Your task to perform on an android device: Open the calendar app, open the side menu, and click the "Day" option Image 0: 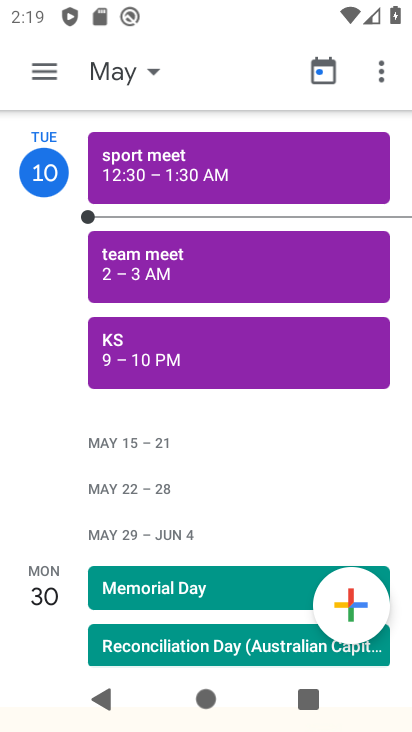
Step 0: click (12, 78)
Your task to perform on an android device: Open the calendar app, open the side menu, and click the "Day" option Image 1: 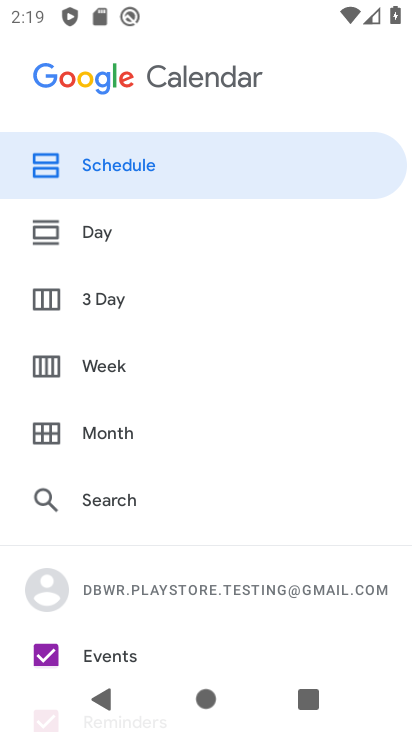
Step 1: click (110, 237)
Your task to perform on an android device: Open the calendar app, open the side menu, and click the "Day" option Image 2: 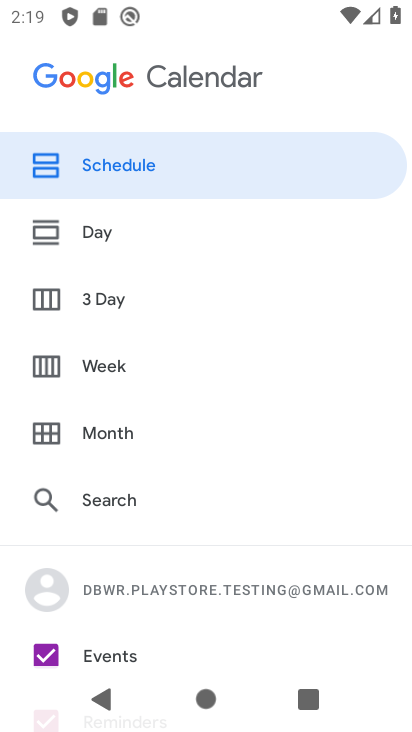
Step 2: click (240, 232)
Your task to perform on an android device: Open the calendar app, open the side menu, and click the "Day" option Image 3: 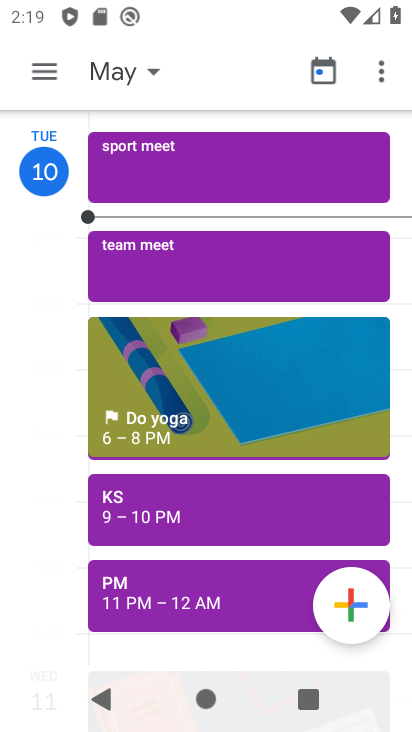
Step 3: click (240, 232)
Your task to perform on an android device: Open the calendar app, open the side menu, and click the "Day" option Image 4: 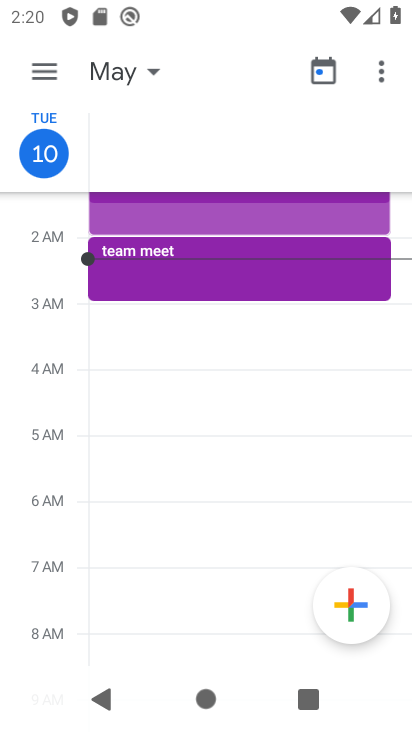
Step 4: task complete